Your task to perform on an android device: Go to sound settings Image 0: 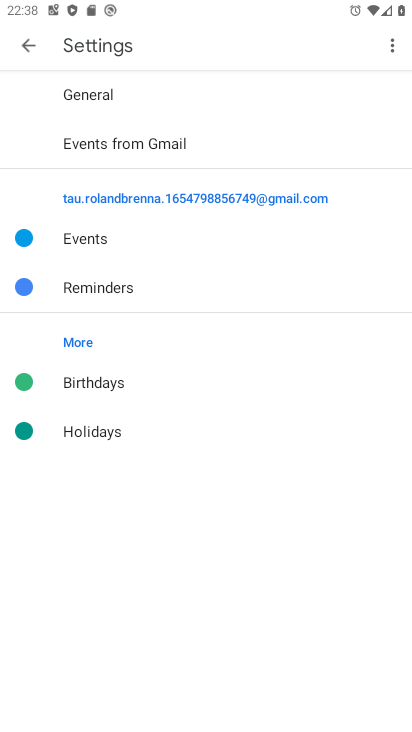
Step 0: press home button
Your task to perform on an android device: Go to sound settings Image 1: 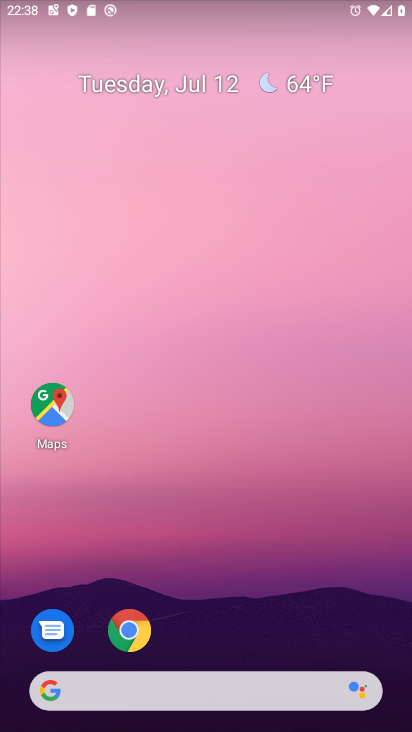
Step 1: drag from (204, 520) to (220, 14)
Your task to perform on an android device: Go to sound settings Image 2: 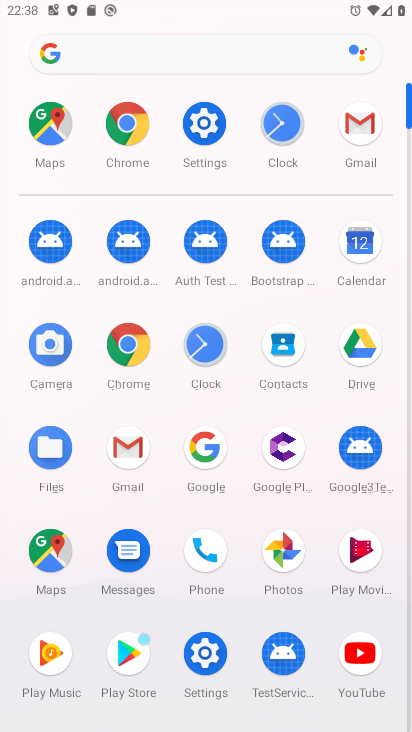
Step 2: click (196, 130)
Your task to perform on an android device: Go to sound settings Image 3: 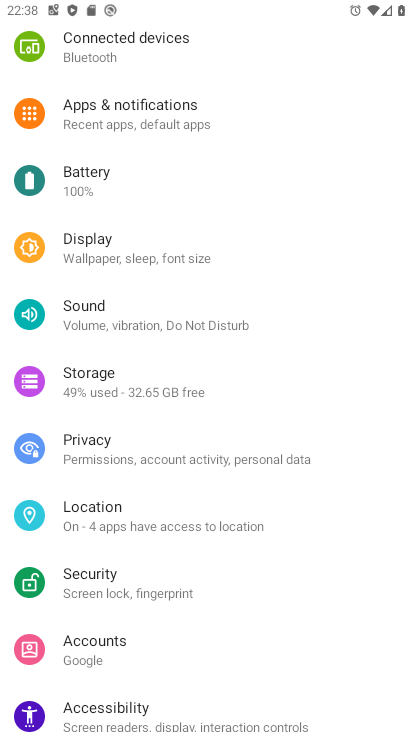
Step 3: click (99, 307)
Your task to perform on an android device: Go to sound settings Image 4: 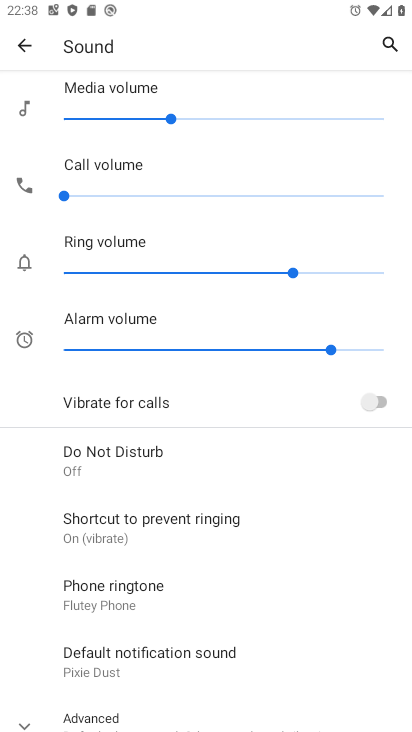
Step 4: task complete